Your task to perform on an android device: change the clock display to analog Image 0: 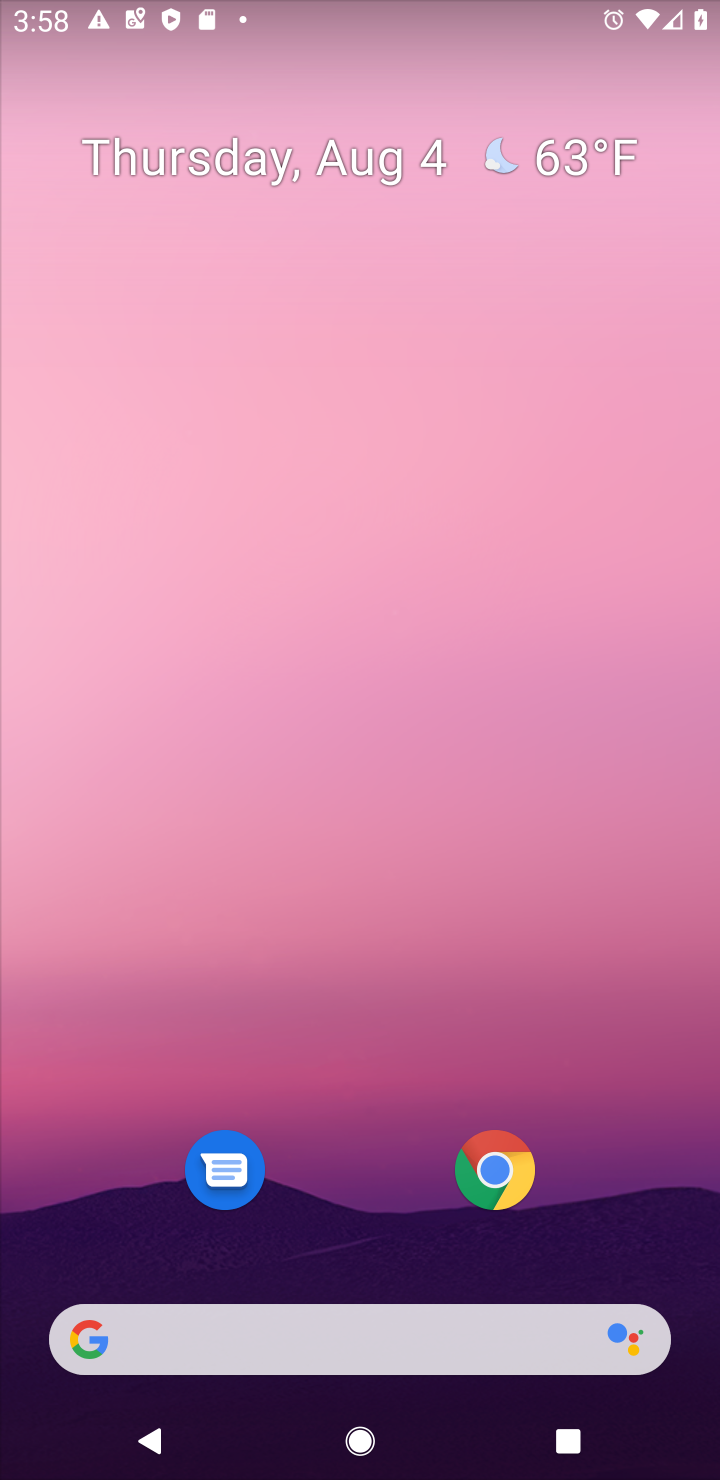
Step 0: drag from (638, 1214) to (534, 230)
Your task to perform on an android device: change the clock display to analog Image 1: 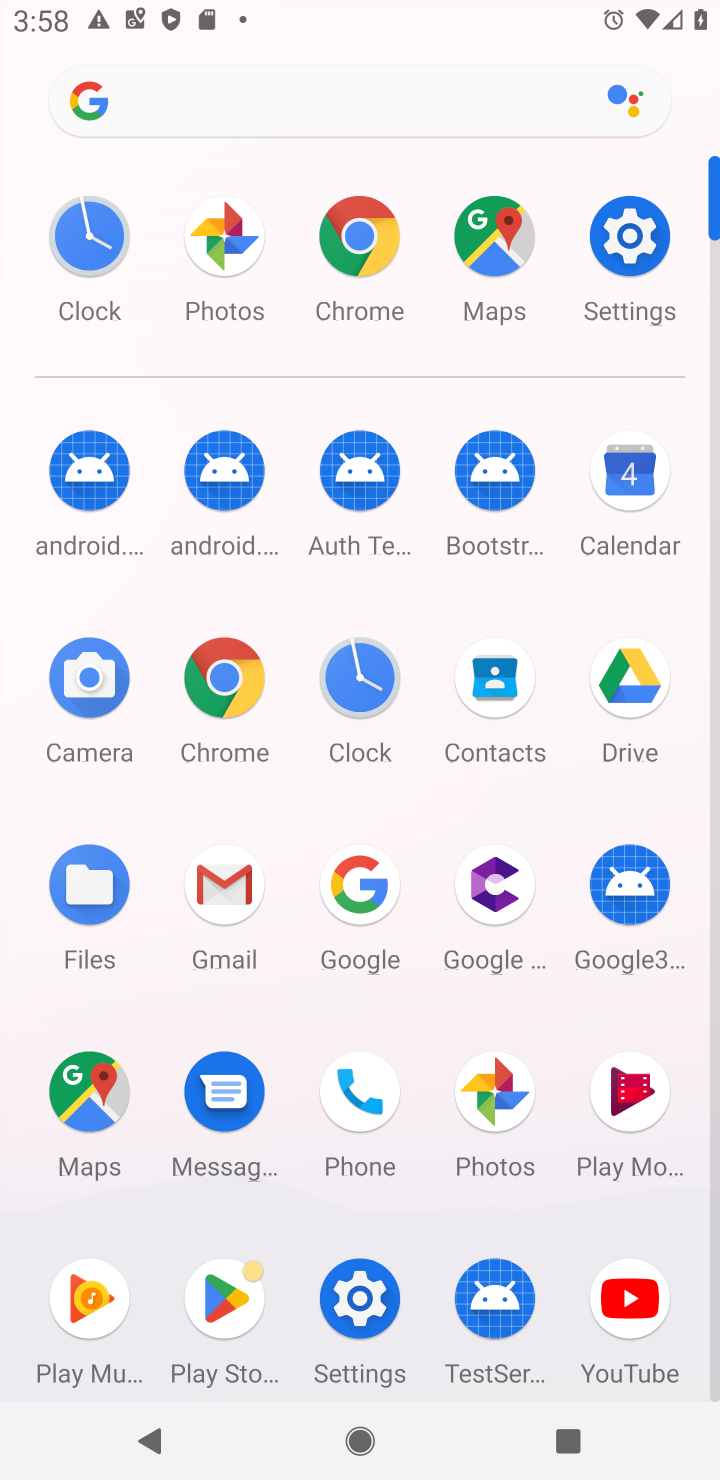
Step 1: click (359, 684)
Your task to perform on an android device: change the clock display to analog Image 2: 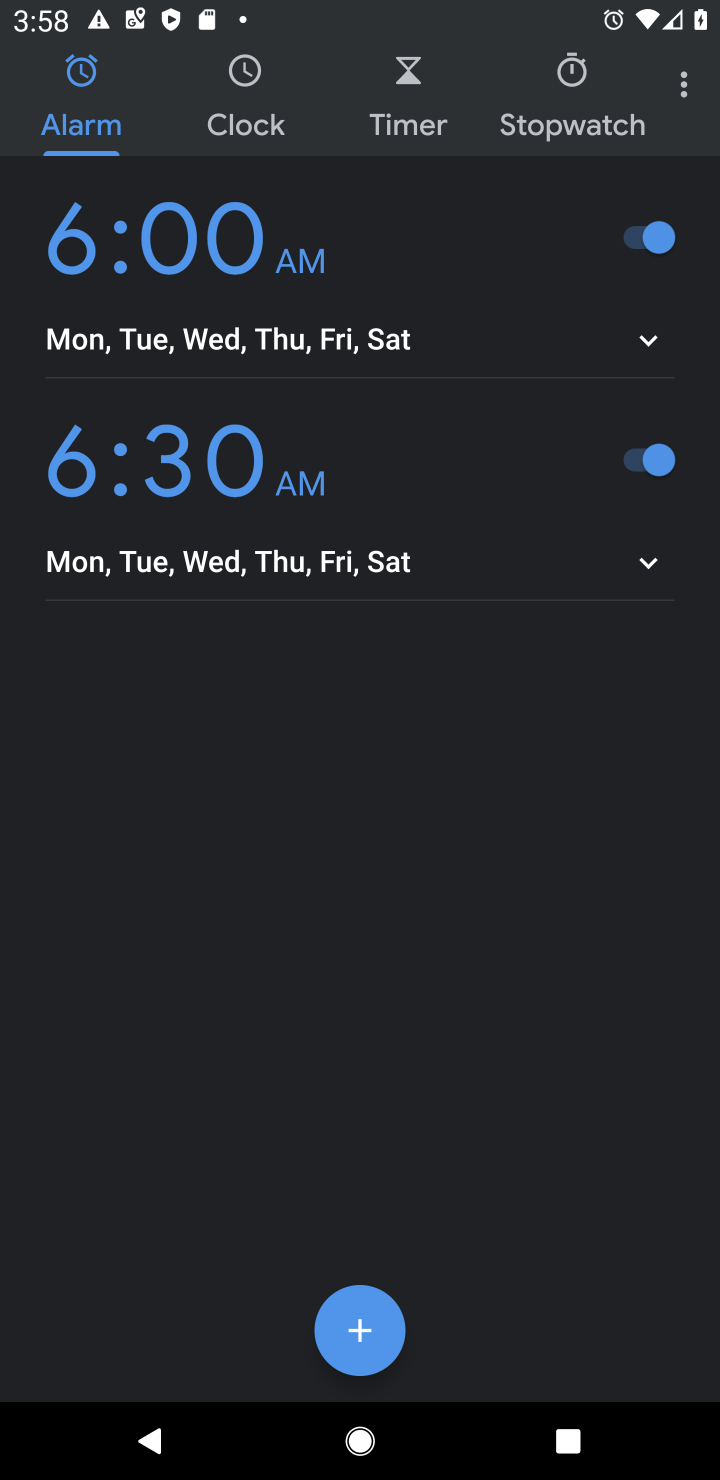
Step 2: click (688, 104)
Your task to perform on an android device: change the clock display to analog Image 3: 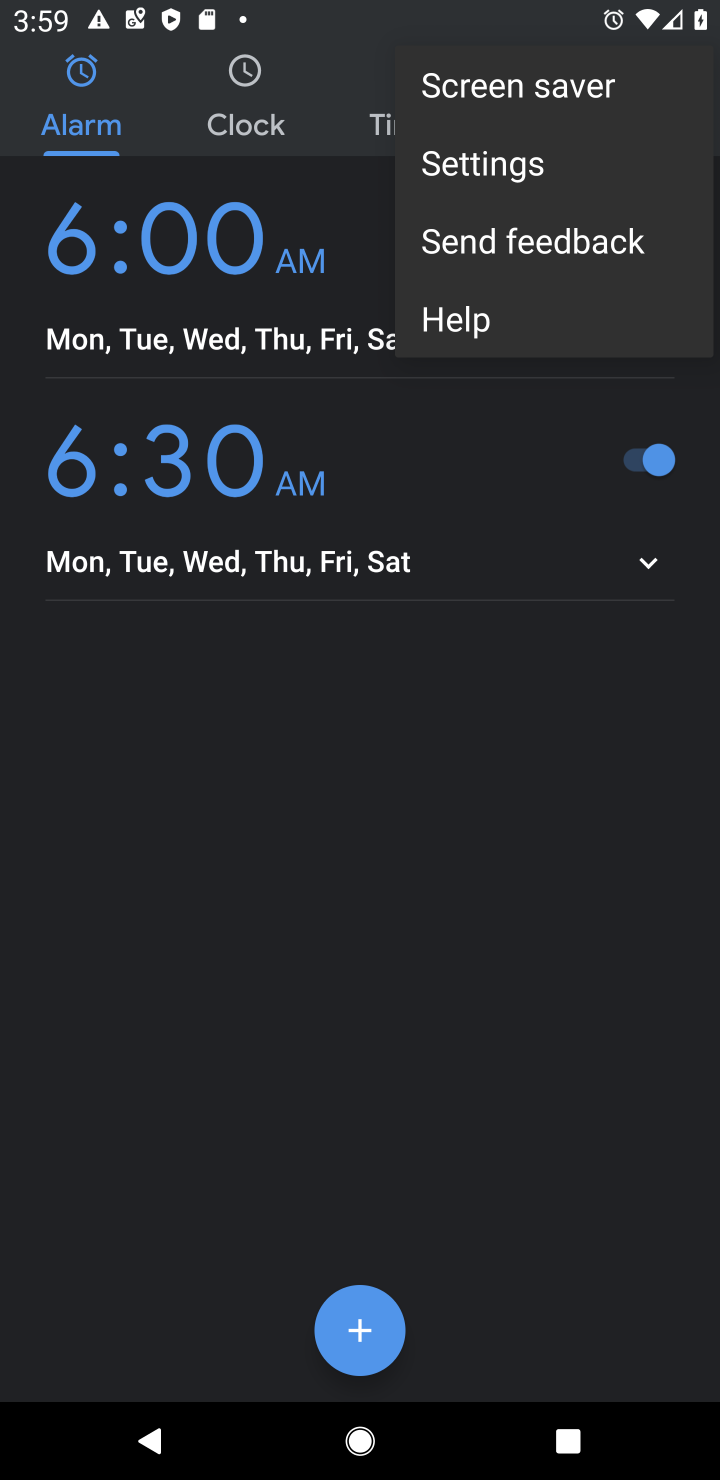
Step 3: click (458, 163)
Your task to perform on an android device: change the clock display to analog Image 4: 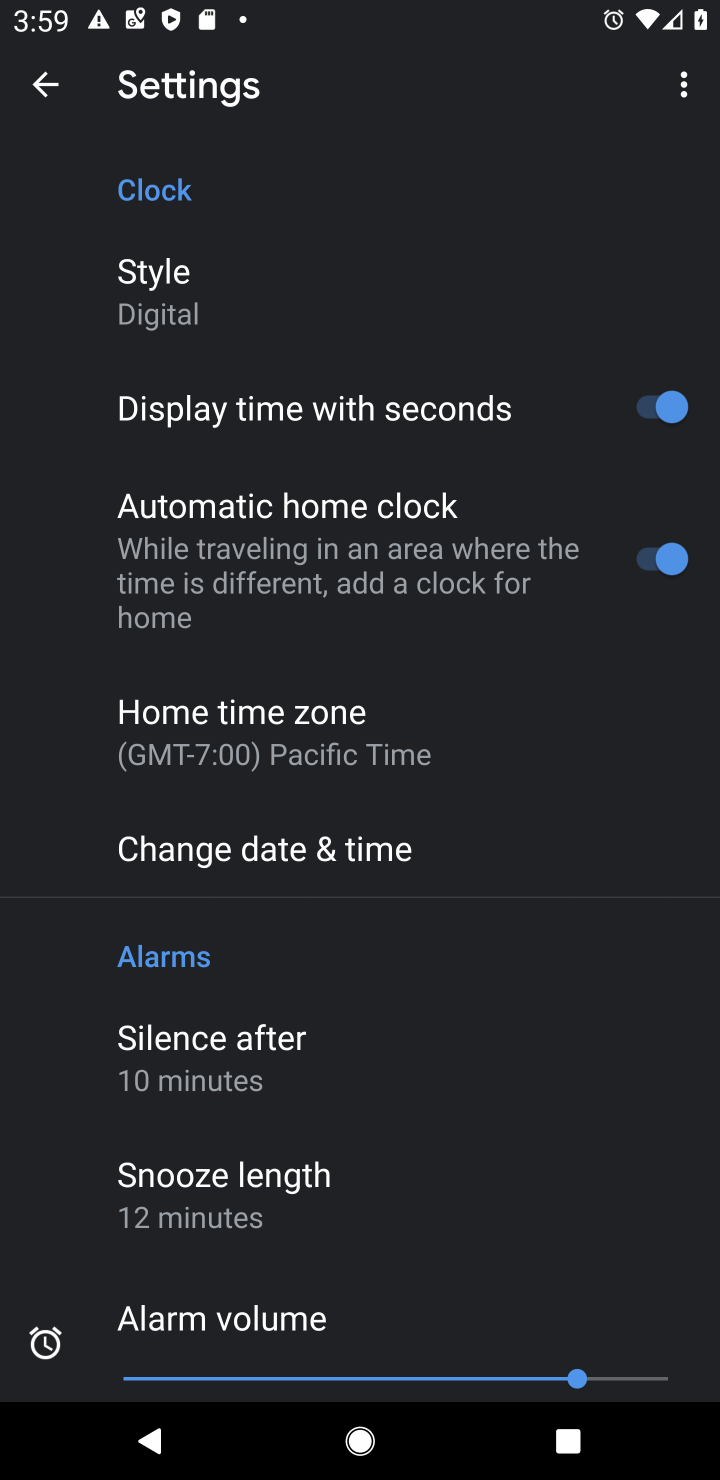
Step 4: click (137, 295)
Your task to perform on an android device: change the clock display to analog Image 5: 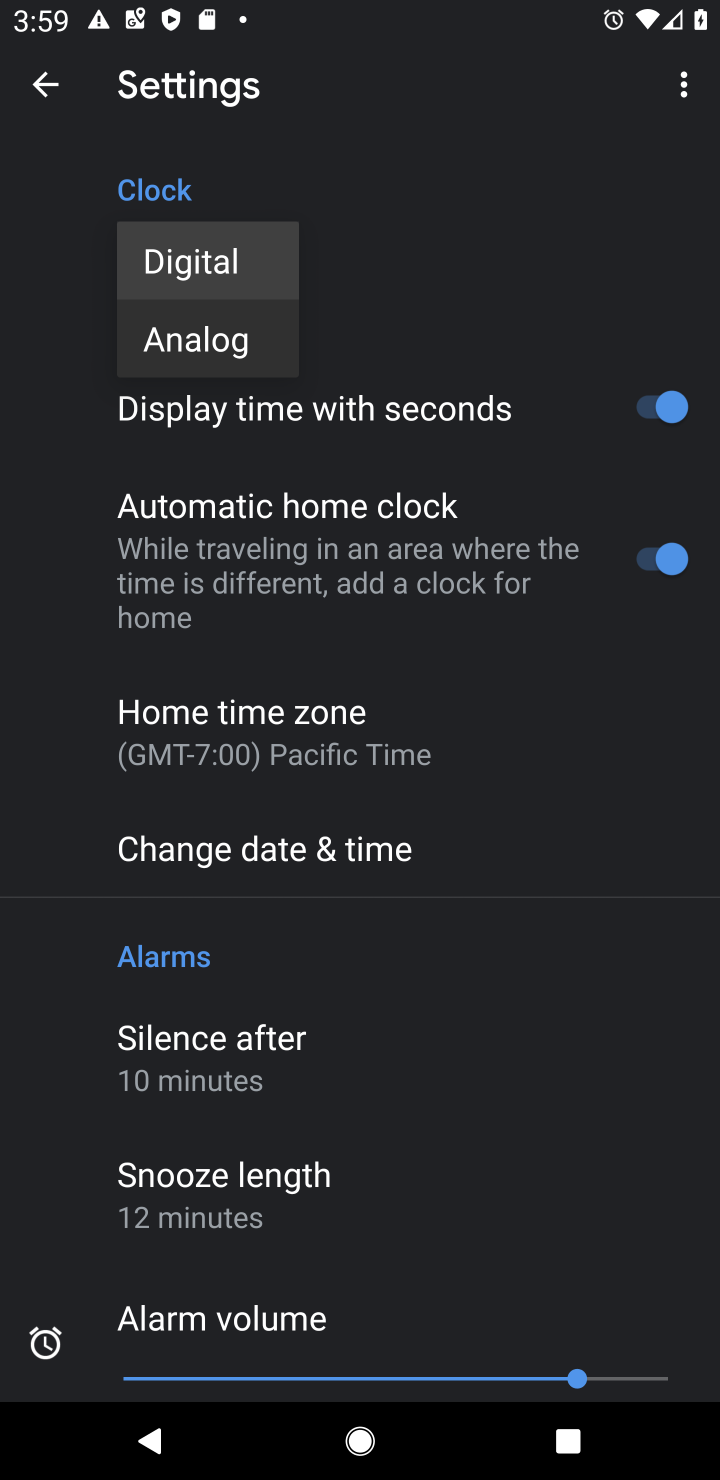
Step 5: click (189, 348)
Your task to perform on an android device: change the clock display to analog Image 6: 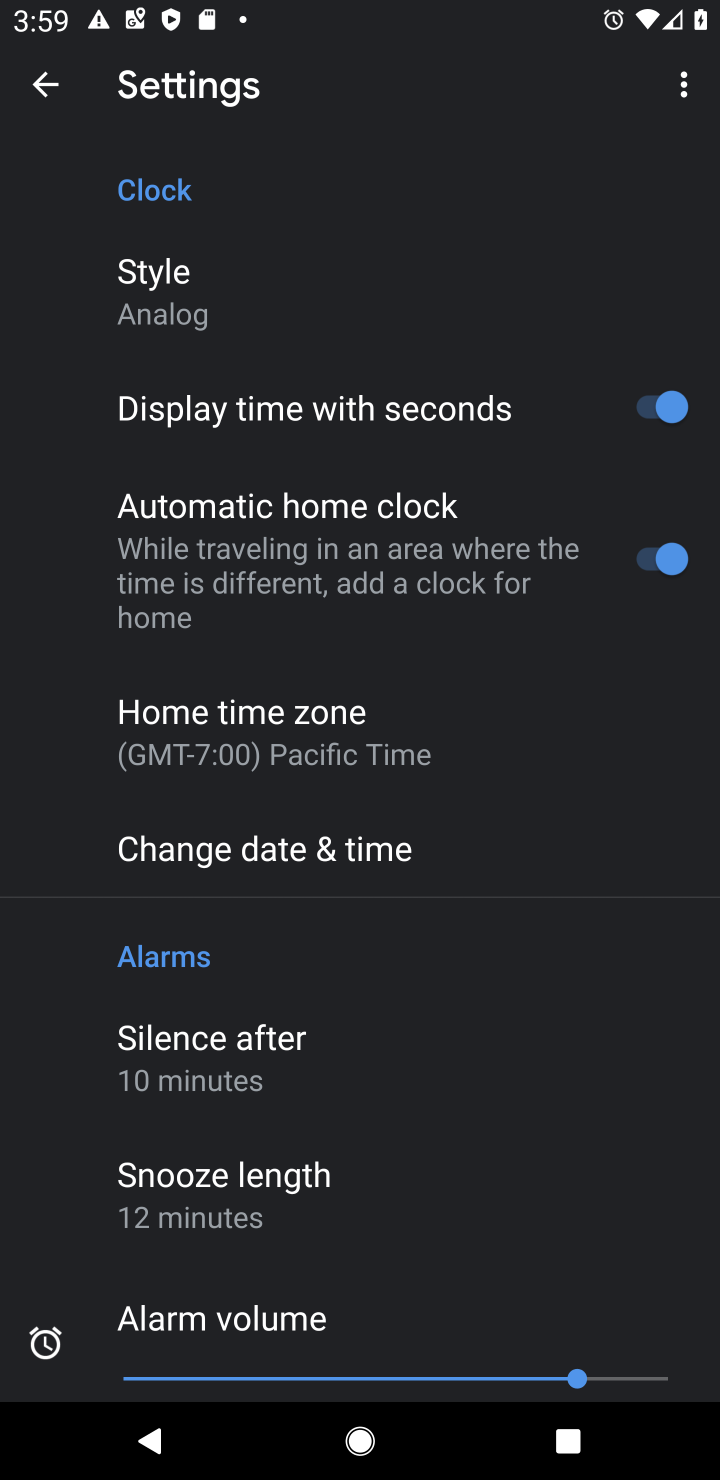
Step 6: task complete